Your task to perform on an android device: change the clock display to analog Image 0: 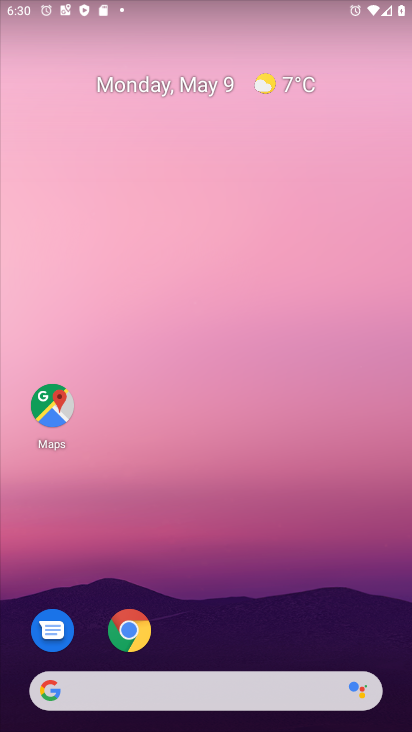
Step 0: drag from (264, 613) to (266, 108)
Your task to perform on an android device: change the clock display to analog Image 1: 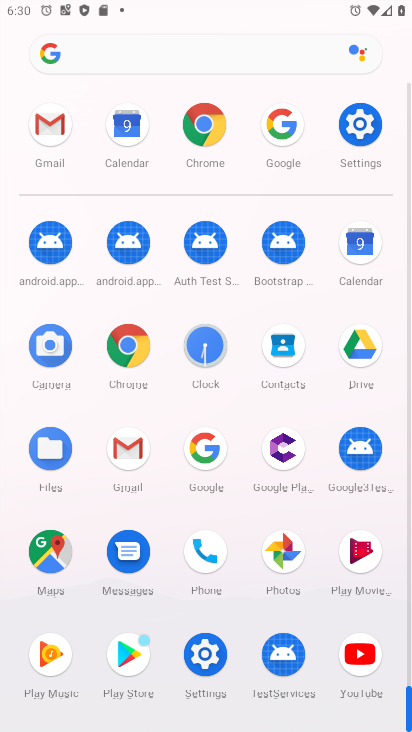
Step 1: click (204, 360)
Your task to perform on an android device: change the clock display to analog Image 2: 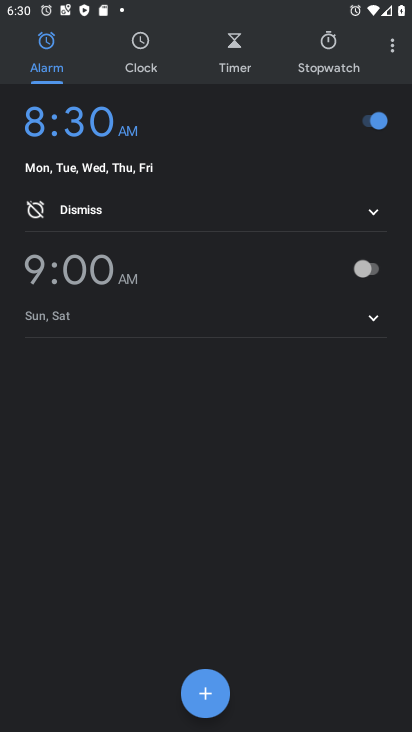
Step 2: click (396, 50)
Your task to perform on an android device: change the clock display to analog Image 3: 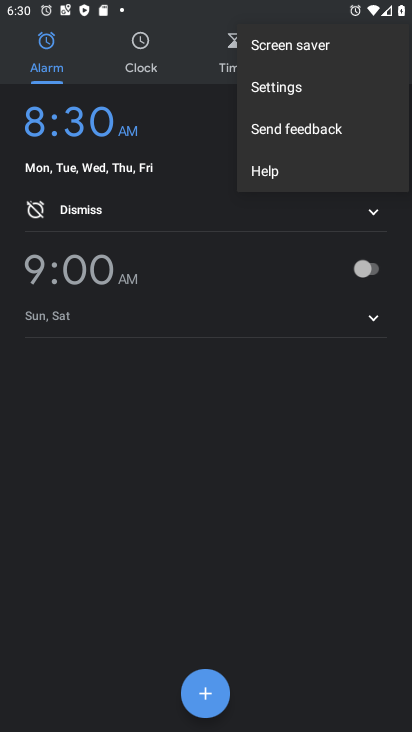
Step 3: click (339, 97)
Your task to perform on an android device: change the clock display to analog Image 4: 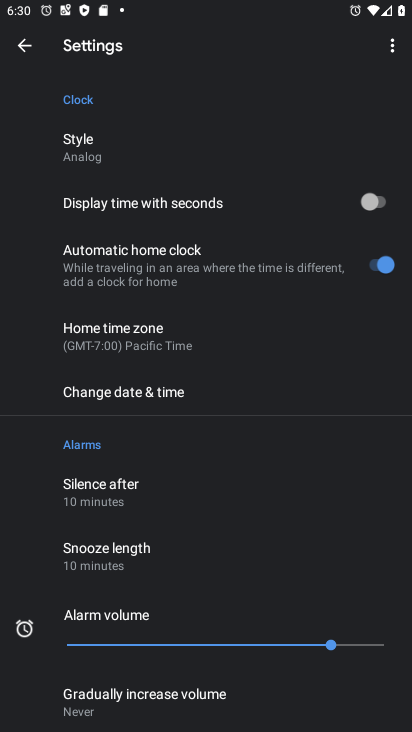
Step 4: click (91, 139)
Your task to perform on an android device: change the clock display to analog Image 5: 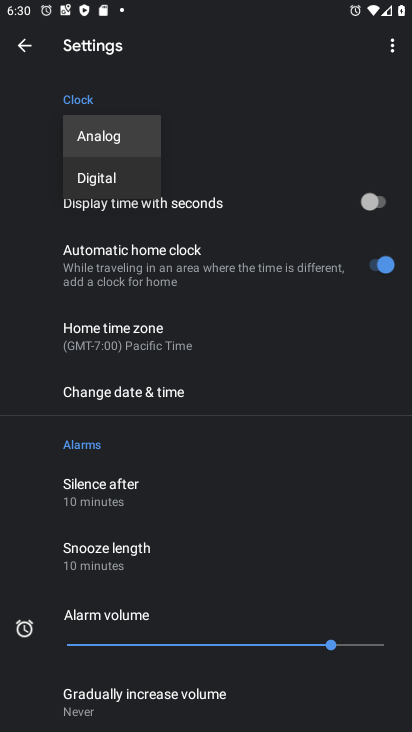
Step 5: task complete